Your task to perform on an android device: delete a single message in the gmail app Image 0: 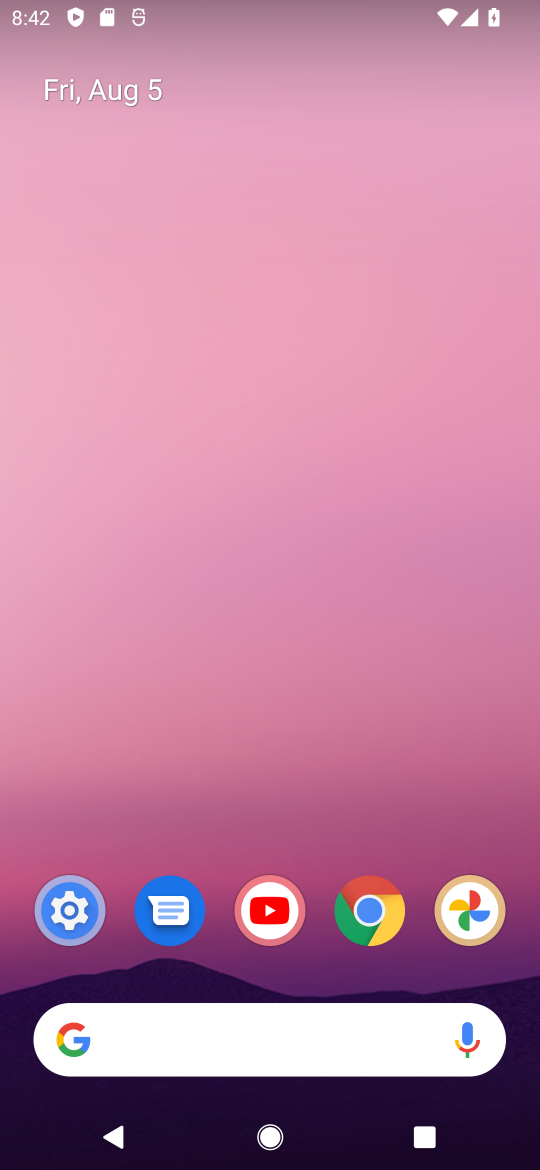
Step 0: drag from (266, 1005) to (243, 242)
Your task to perform on an android device: delete a single message in the gmail app Image 1: 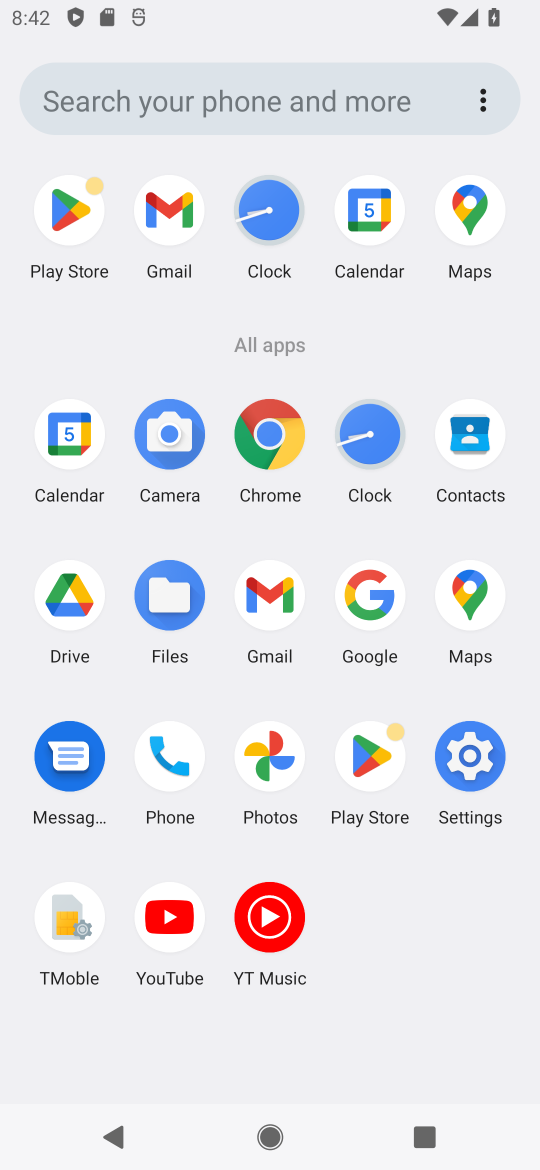
Step 1: click (269, 596)
Your task to perform on an android device: delete a single message in the gmail app Image 2: 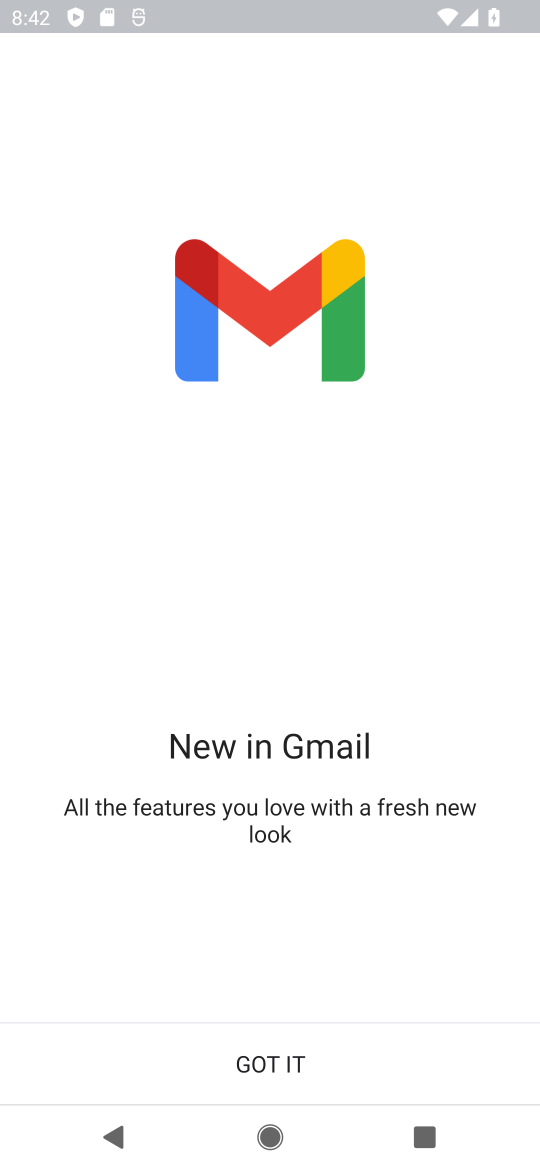
Step 2: click (281, 1056)
Your task to perform on an android device: delete a single message in the gmail app Image 3: 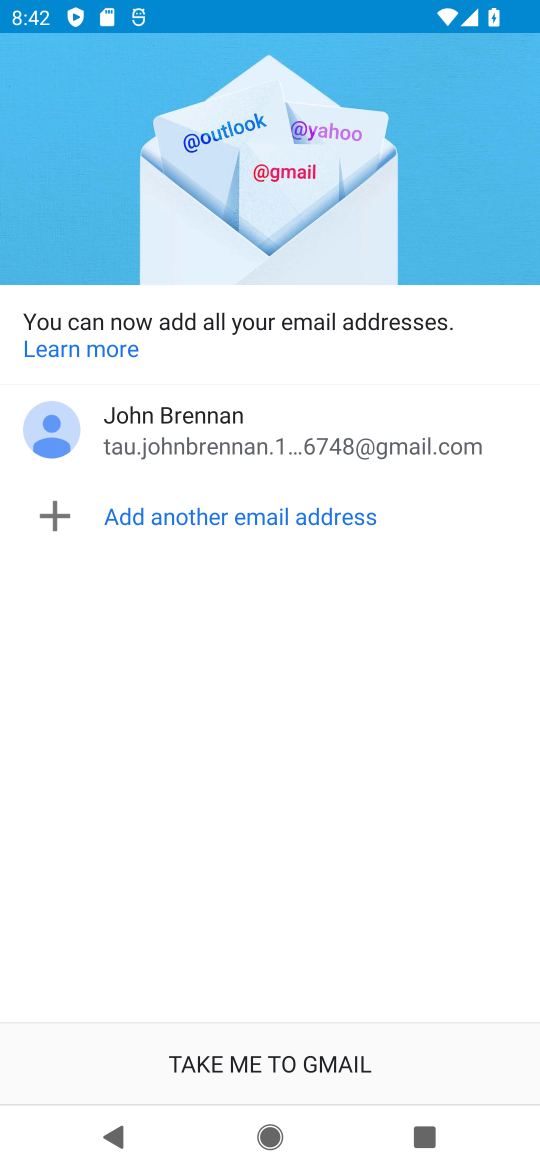
Step 3: click (205, 1053)
Your task to perform on an android device: delete a single message in the gmail app Image 4: 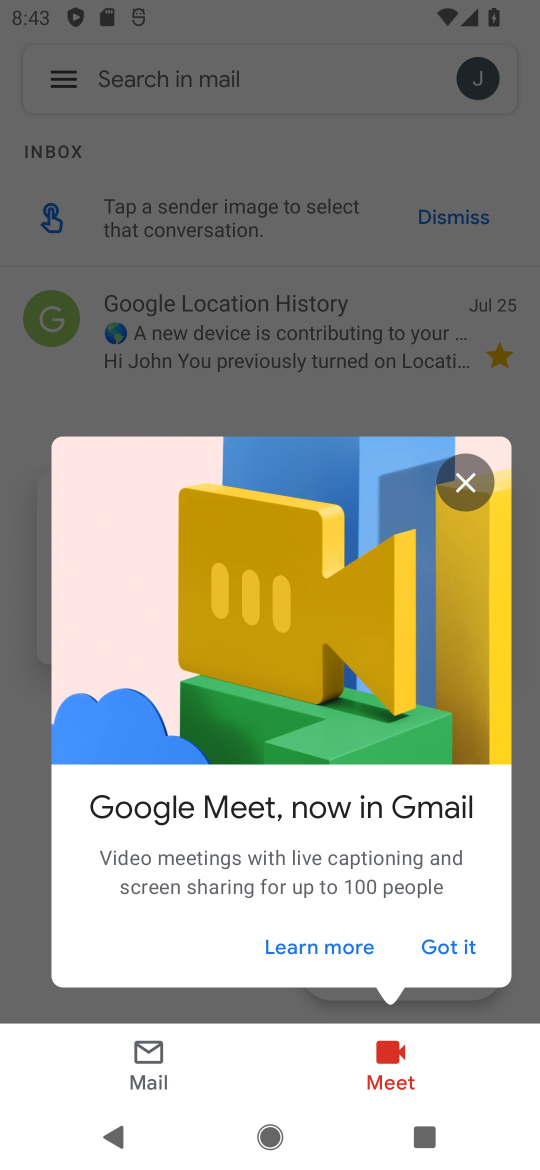
Step 4: click (436, 948)
Your task to perform on an android device: delete a single message in the gmail app Image 5: 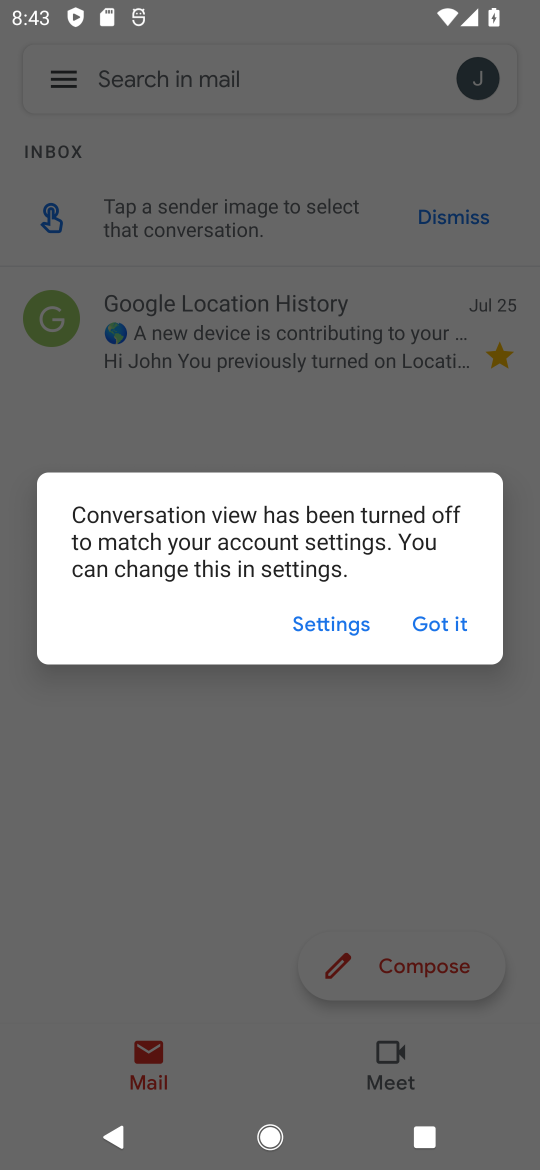
Step 5: click (442, 620)
Your task to perform on an android device: delete a single message in the gmail app Image 6: 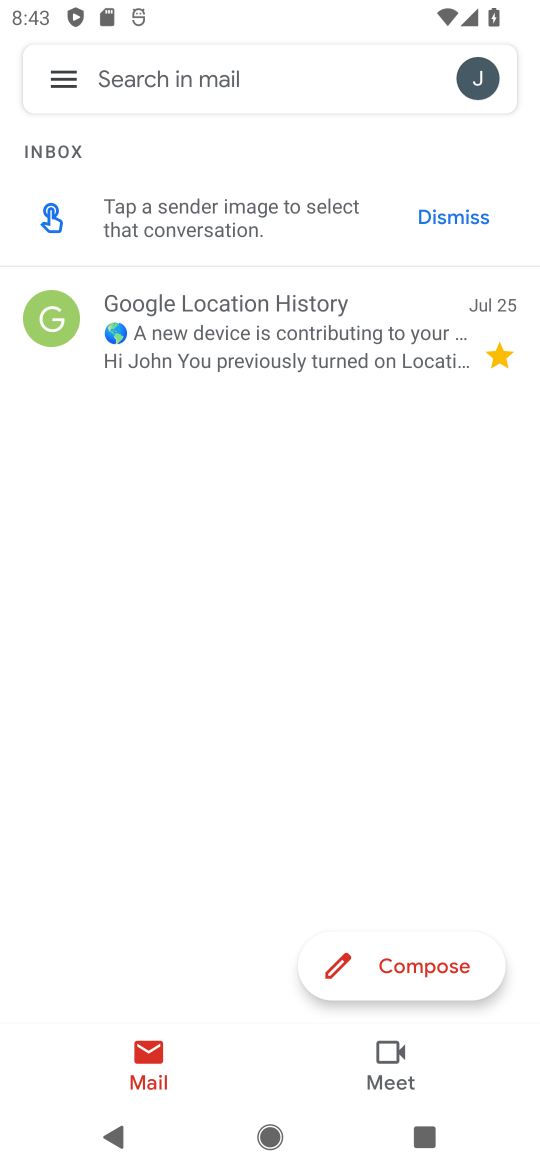
Step 6: click (38, 309)
Your task to perform on an android device: delete a single message in the gmail app Image 7: 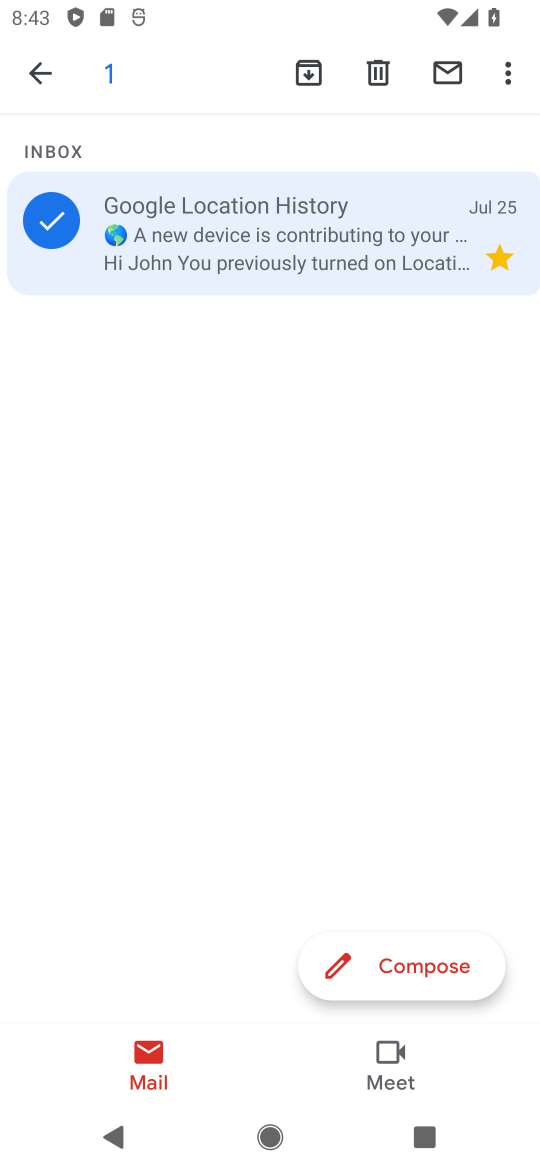
Step 7: click (369, 82)
Your task to perform on an android device: delete a single message in the gmail app Image 8: 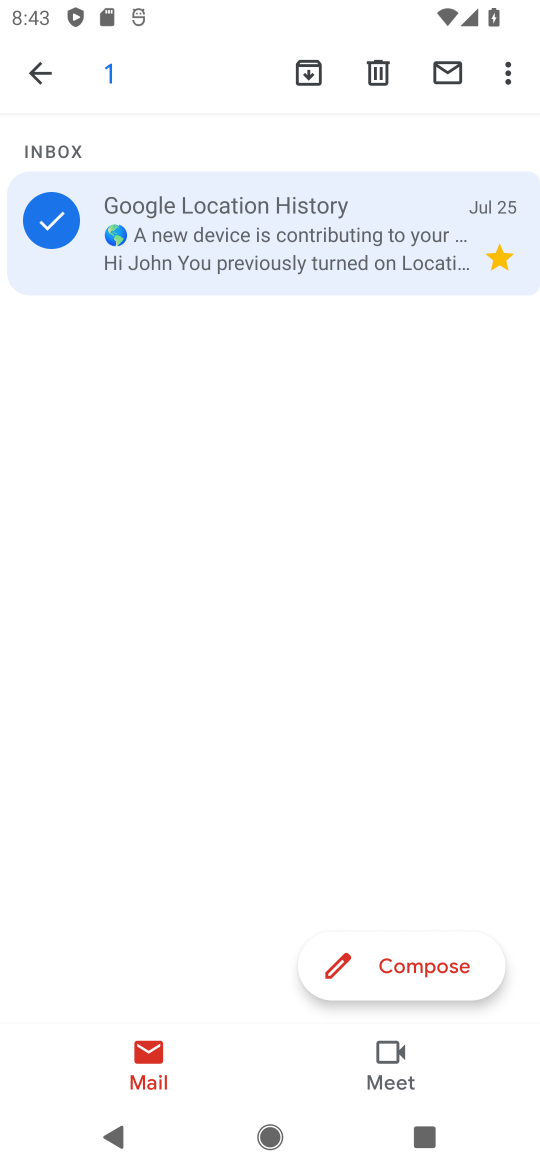
Step 8: click (381, 70)
Your task to perform on an android device: delete a single message in the gmail app Image 9: 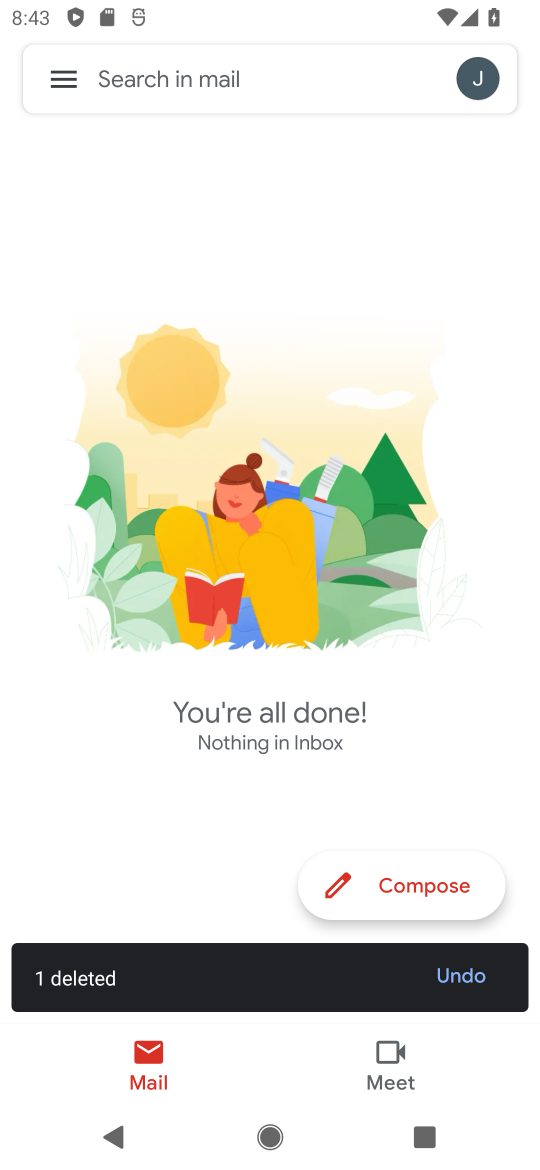
Step 9: task complete